Your task to perform on an android device: see sites visited before in the chrome app Image 0: 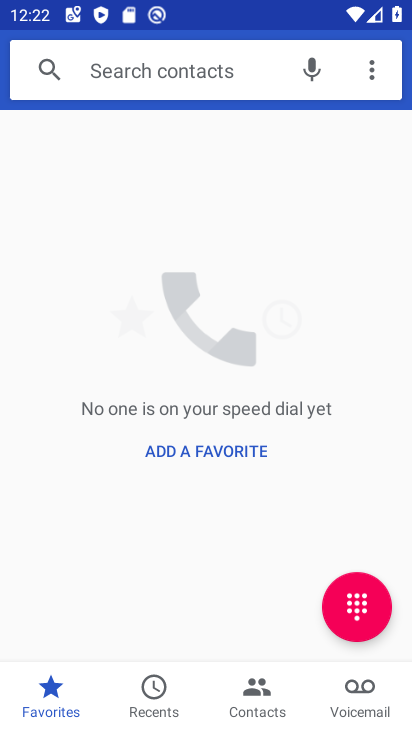
Step 0: press home button
Your task to perform on an android device: see sites visited before in the chrome app Image 1: 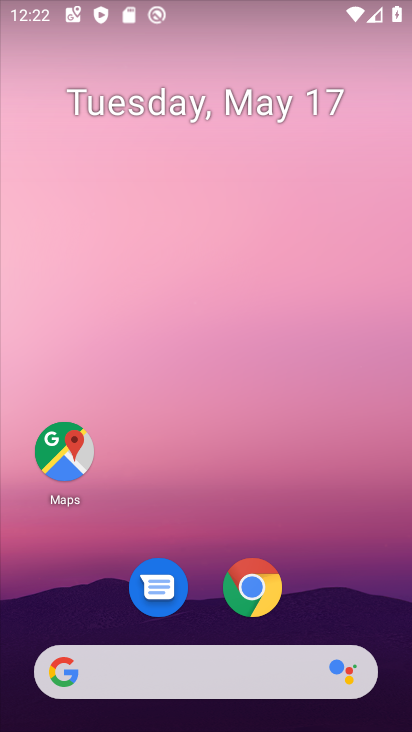
Step 1: drag from (198, 595) to (198, 74)
Your task to perform on an android device: see sites visited before in the chrome app Image 2: 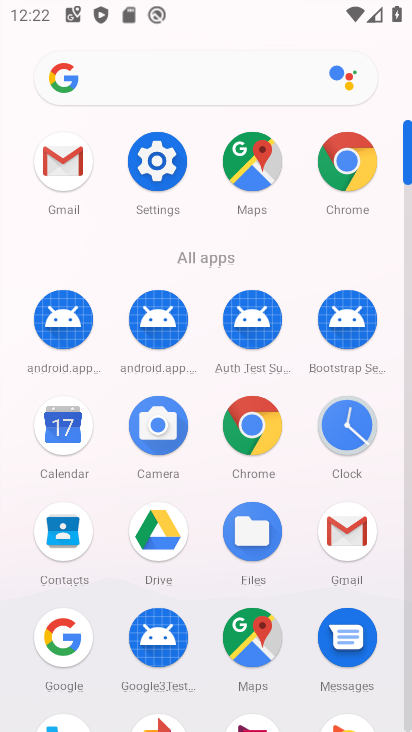
Step 2: click (342, 182)
Your task to perform on an android device: see sites visited before in the chrome app Image 3: 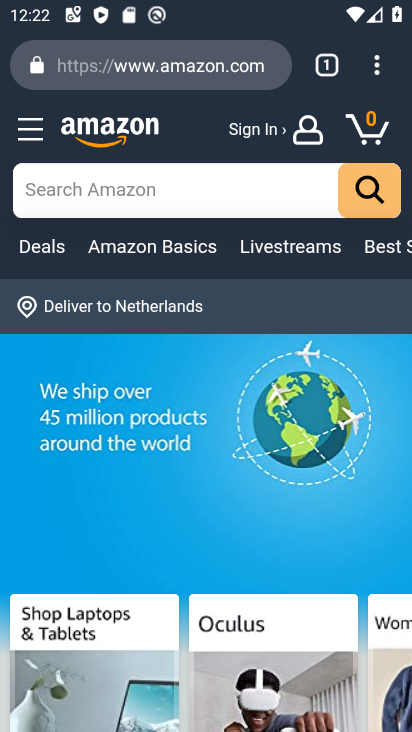
Step 3: click (382, 58)
Your task to perform on an android device: see sites visited before in the chrome app Image 4: 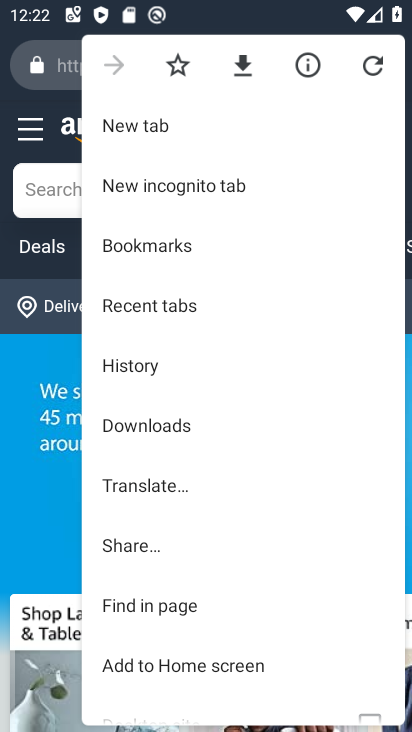
Step 4: click (119, 379)
Your task to perform on an android device: see sites visited before in the chrome app Image 5: 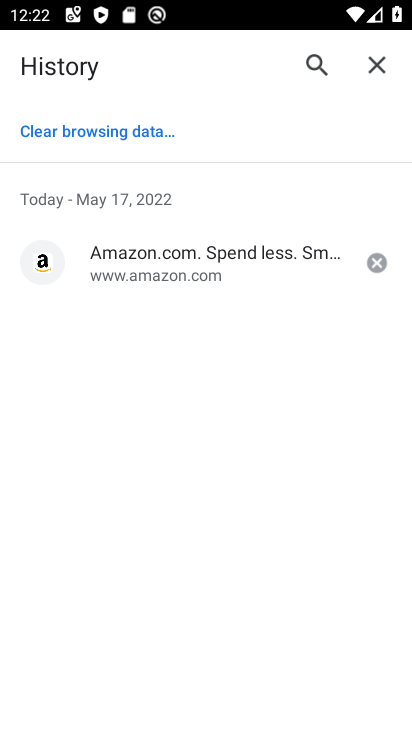
Step 5: task complete